Your task to perform on an android device: clear history in the chrome app Image 0: 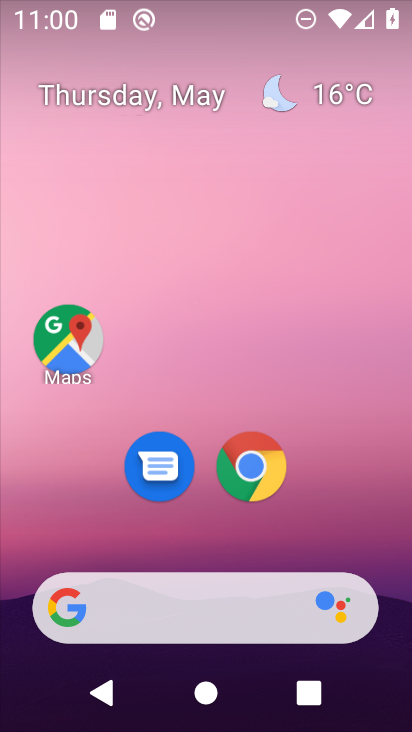
Step 0: click (257, 464)
Your task to perform on an android device: clear history in the chrome app Image 1: 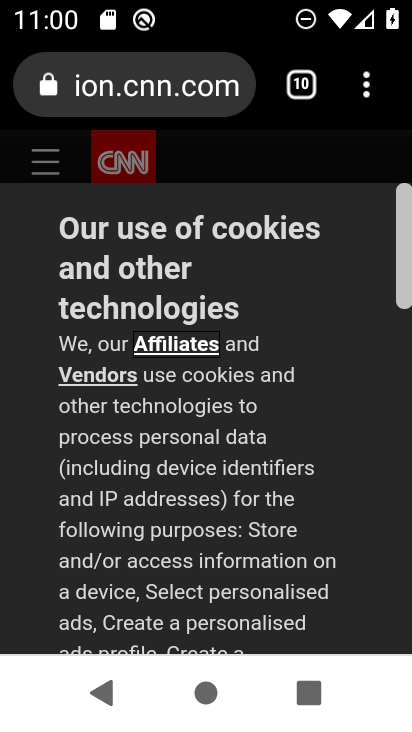
Step 1: click (363, 81)
Your task to perform on an android device: clear history in the chrome app Image 2: 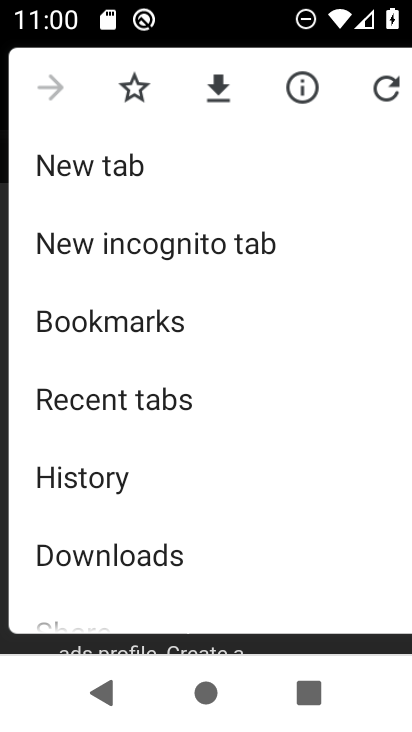
Step 2: click (129, 452)
Your task to perform on an android device: clear history in the chrome app Image 3: 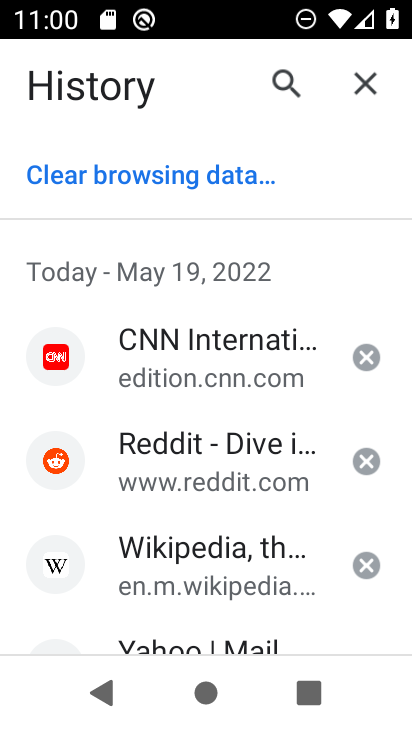
Step 3: click (80, 163)
Your task to perform on an android device: clear history in the chrome app Image 4: 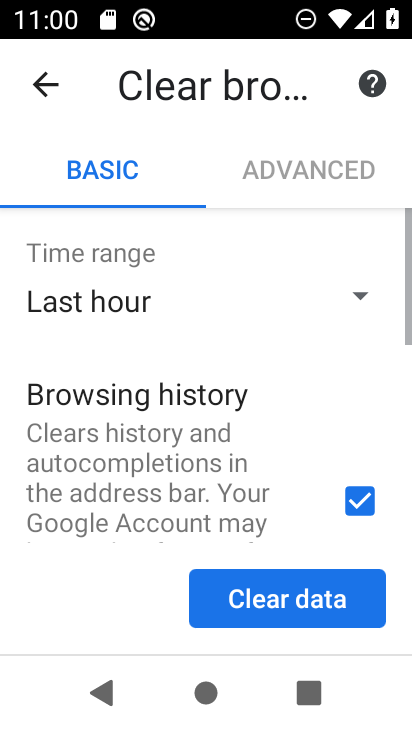
Step 4: click (318, 584)
Your task to perform on an android device: clear history in the chrome app Image 5: 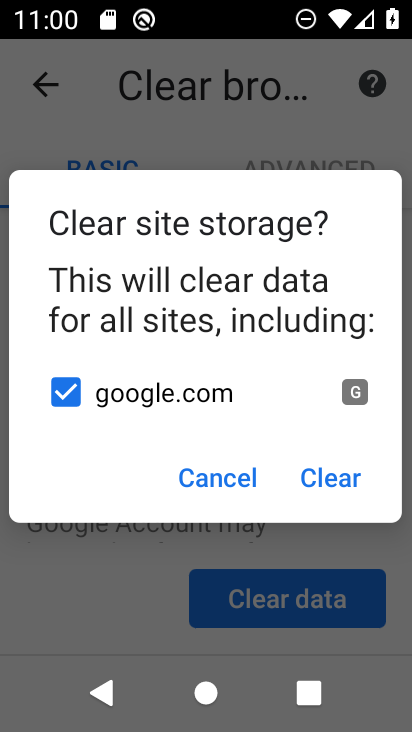
Step 5: click (307, 457)
Your task to perform on an android device: clear history in the chrome app Image 6: 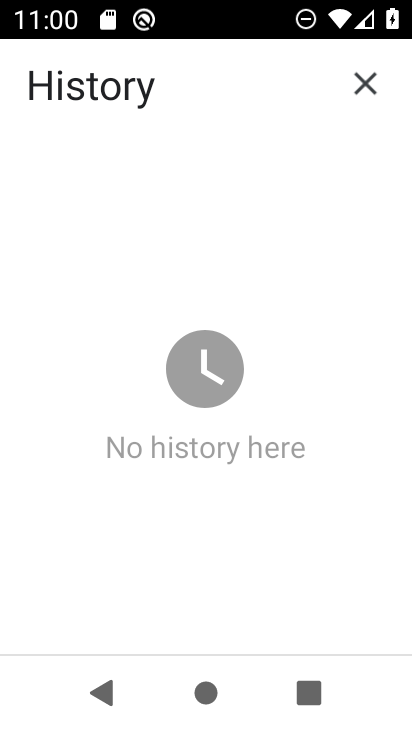
Step 6: task complete